Your task to perform on an android device: Find coffee shops on Maps Image 0: 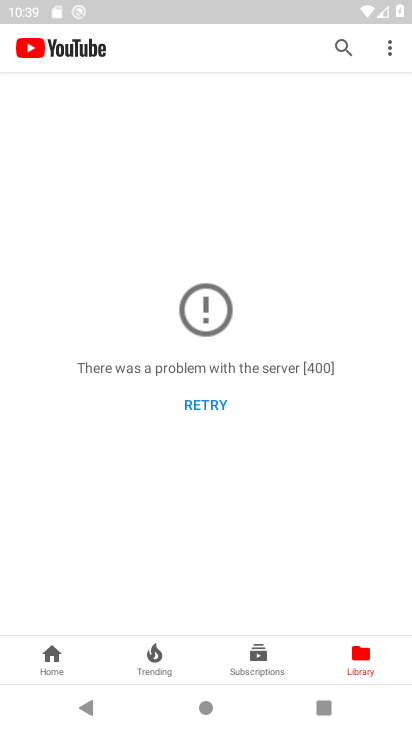
Step 0: press home button
Your task to perform on an android device: Find coffee shops on Maps Image 1: 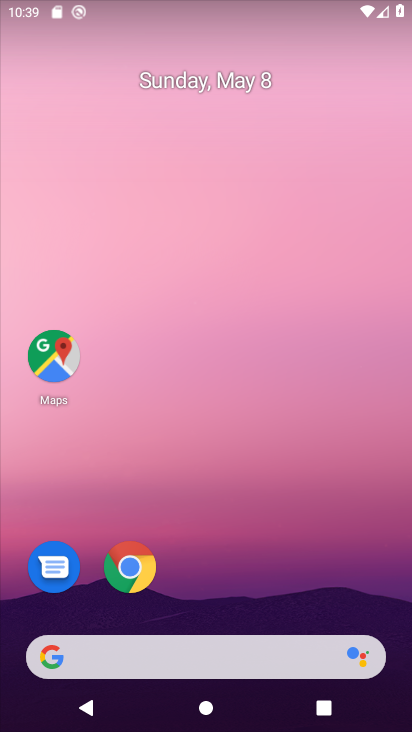
Step 1: drag from (219, 591) to (281, 61)
Your task to perform on an android device: Find coffee shops on Maps Image 2: 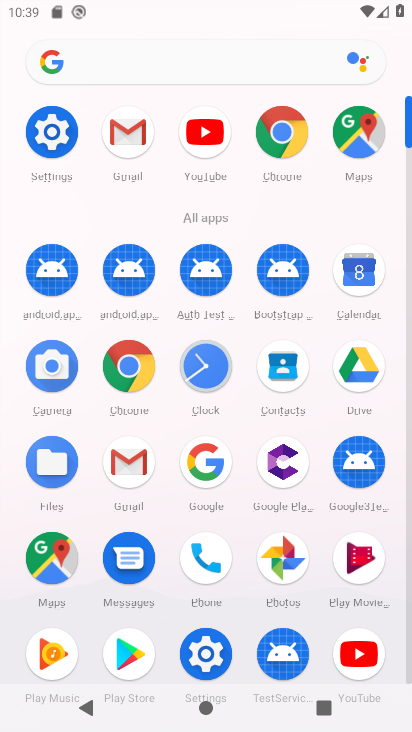
Step 2: click (366, 136)
Your task to perform on an android device: Find coffee shops on Maps Image 3: 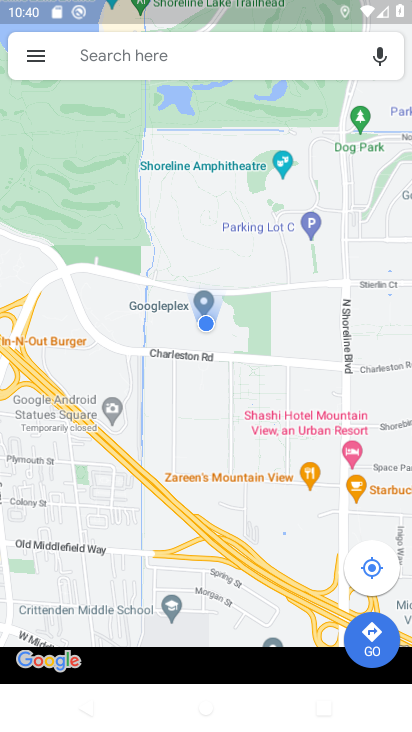
Step 3: click (163, 70)
Your task to perform on an android device: Find coffee shops on Maps Image 4: 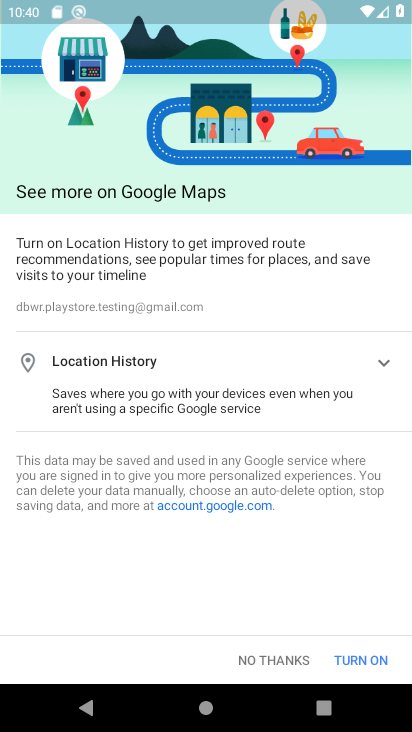
Step 4: click (271, 655)
Your task to perform on an android device: Find coffee shops on Maps Image 5: 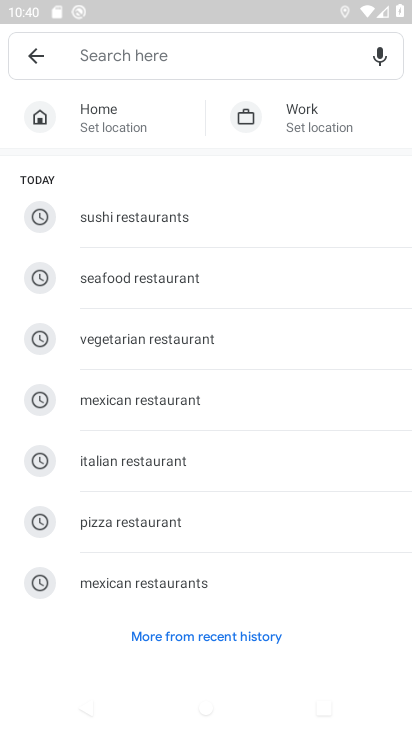
Step 5: click (147, 73)
Your task to perform on an android device: Find coffee shops on Maps Image 6: 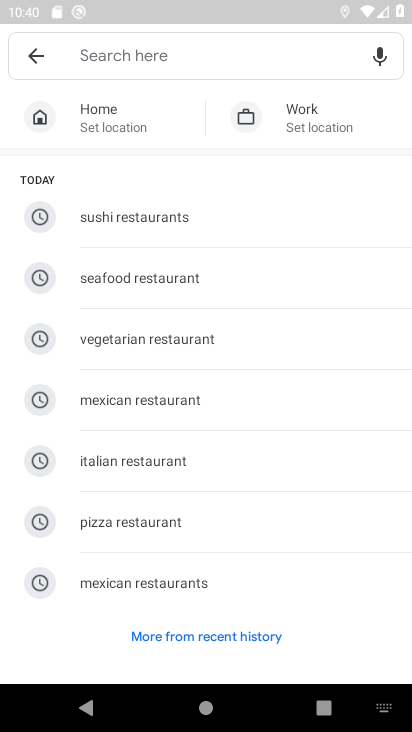
Step 6: type "coffee shops"
Your task to perform on an android device: Find coffee shops on Maps Image 7: 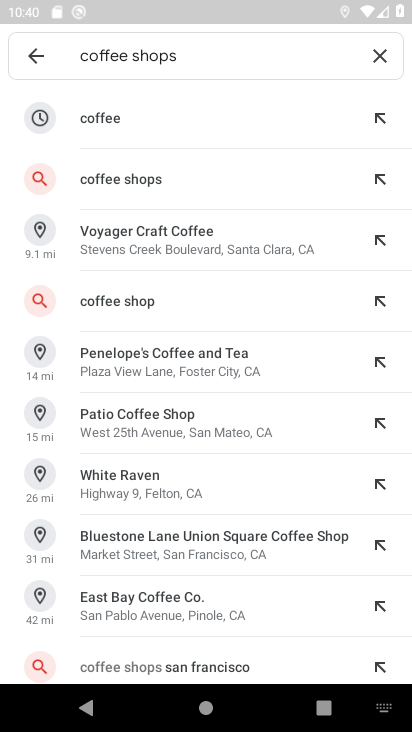
Step 7: click (132, 181)
Your task to perform on an android device: Find coffee shops on Maps Image 8: 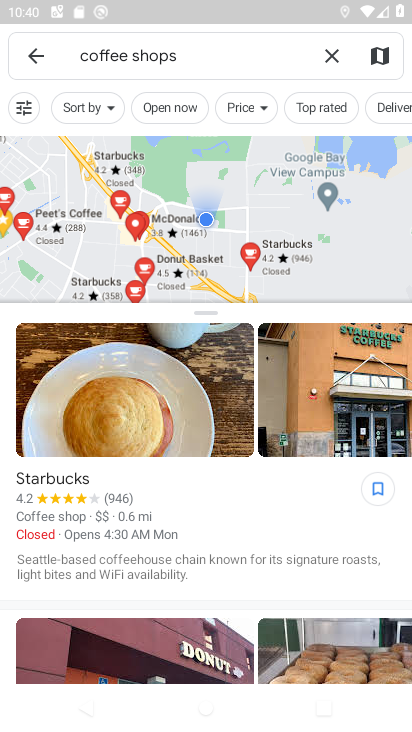
Step 8: task complete